Your task to perform on an android device: read, delete, or share a saved page in the chrome app Image 0: 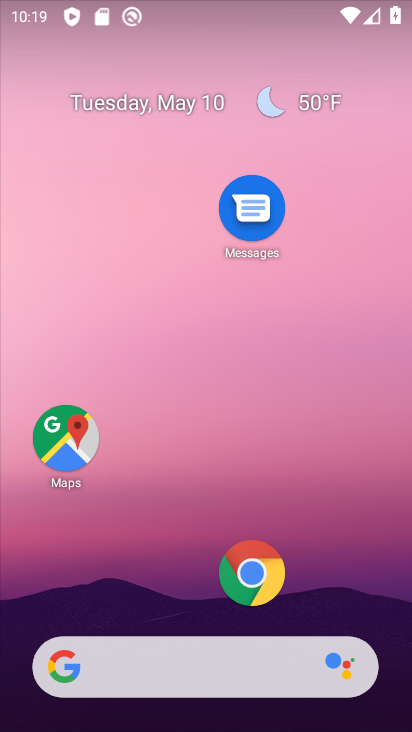
Step 0: drag from (160, 571) to (204, 126)
Your task to perform on an android device: read, delete, or share a saved page in the chrome app Image 1: 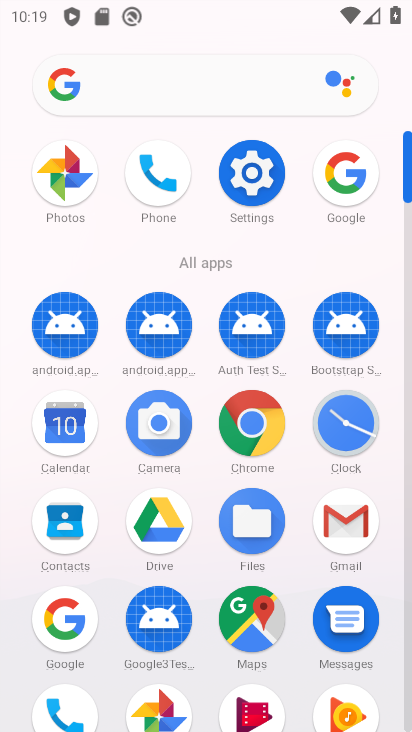
Step 1: click (251, 423)
Your task to perform on an android device: read, delete, or share a saved page in the chrome app Image 2: 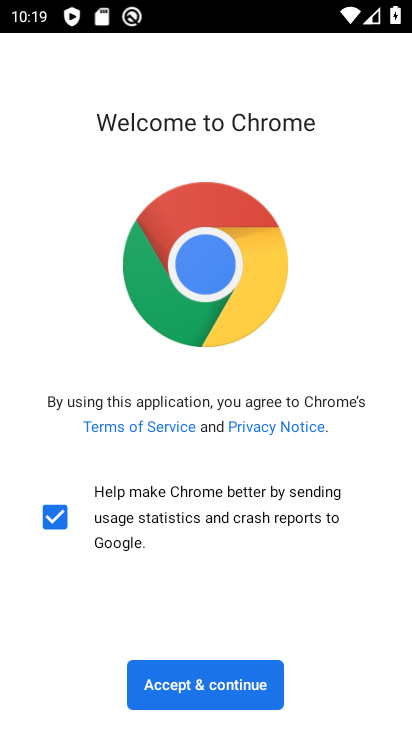
Step 2: click (219, 693)
Your task to perform on an android device: read, delete, or share a saved page in the chrome app Image 3: 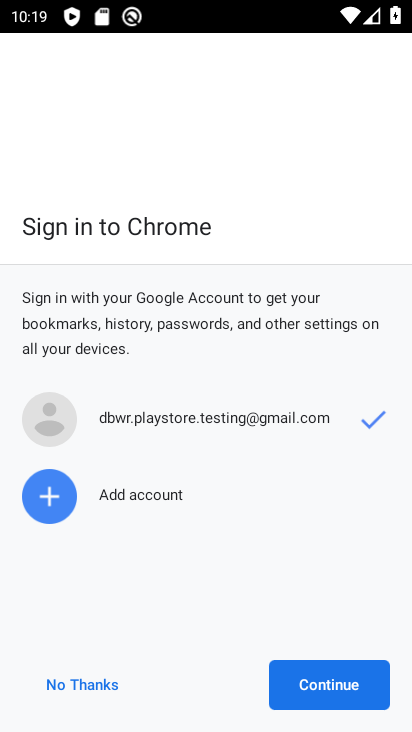
Step 3: click (318, 684)
Your task to perform on an android device: read, delete, or share a saved page in the chrome app Image 4: 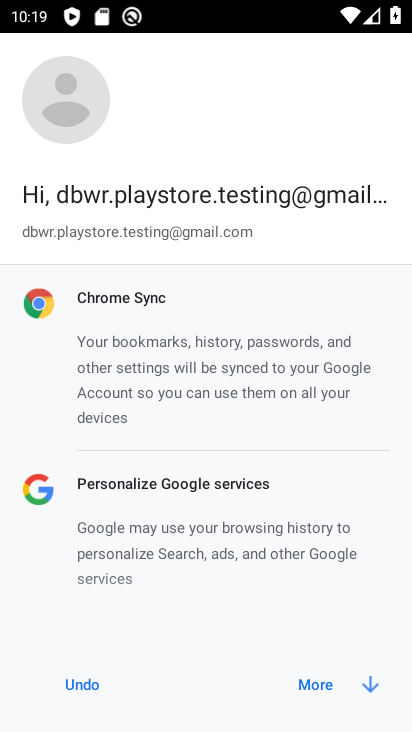
Step 4: click (318, 684)
Your task to perform on an android device: read, delete, or share a saved page in the chrome app Image 5: 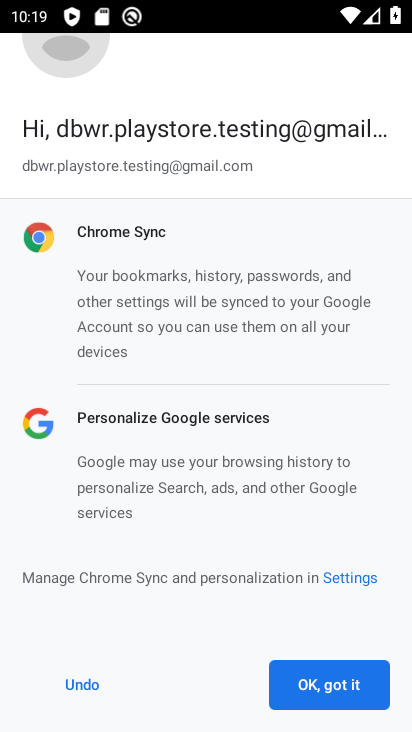
Step 5: click (318, 684)
Your task to perform on an android device: read, delete, or share a saved page in the chrome app Image 6: 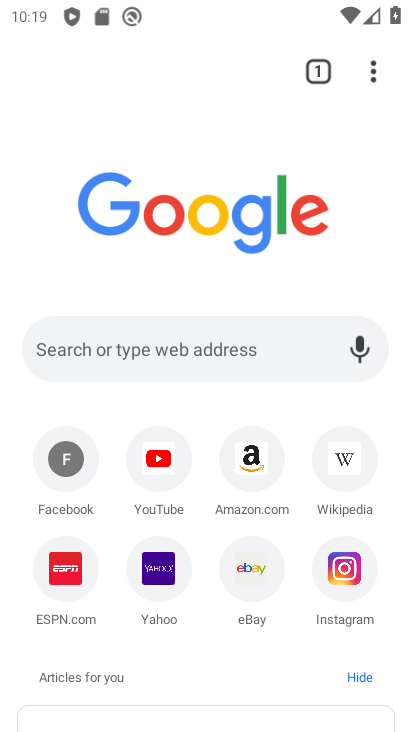
Step 6: click (361, 77)
Your task to perform on an android device: read, delete, or share a saved page in the chrome app Image 7: 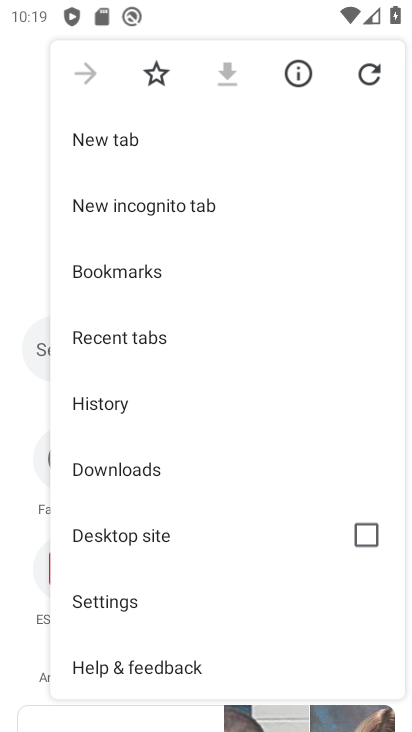
Step 7: click (155, 470)
Your task to perform on an android device: read, delete, or share a saved page in the chrome app Image 8: 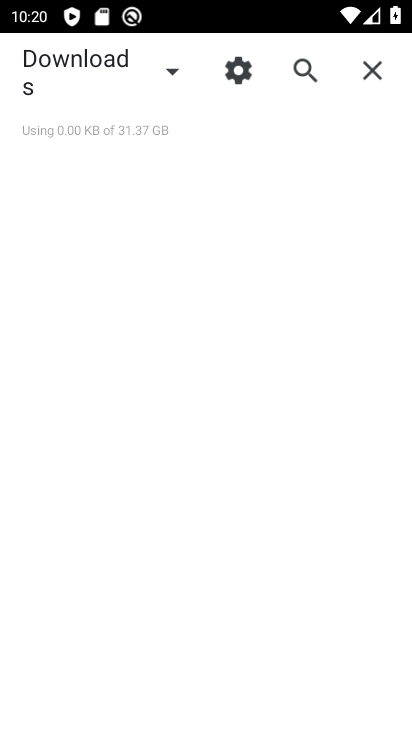
Step 8: task complete